Your task to perform on an android device: Go to eBay Image 0: 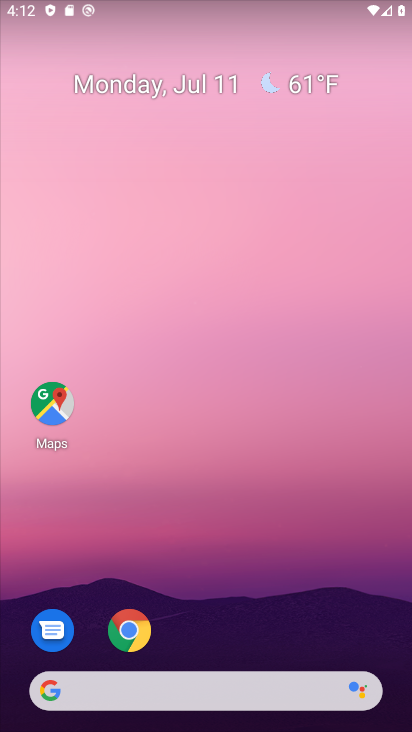
Step 0: drag from (312, 593) to (258, 3)
Your task to perform on an android device: Go to eBay Image 1: 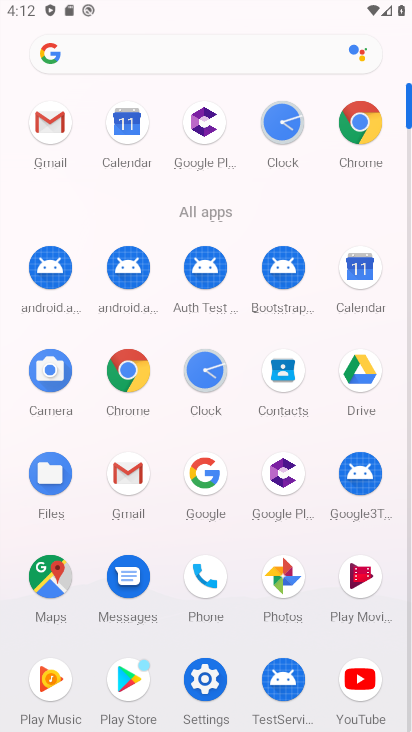
Step 1: click (374, 131)
Your task to perform on an android device: Go to eBay Image 2: 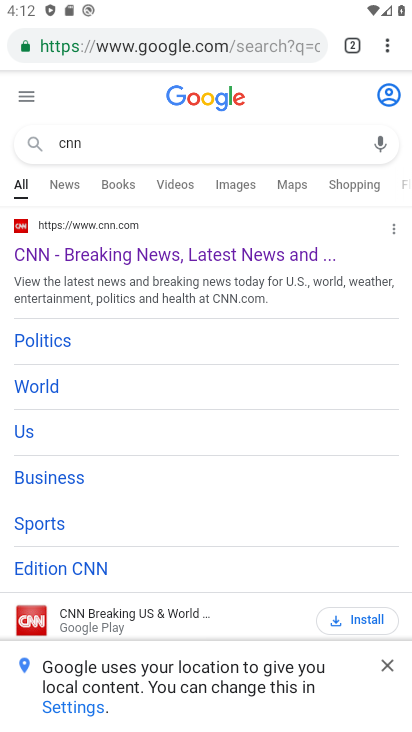
Step 2: press back button
Your task to perform on an android device: Go to eBay Image 3: 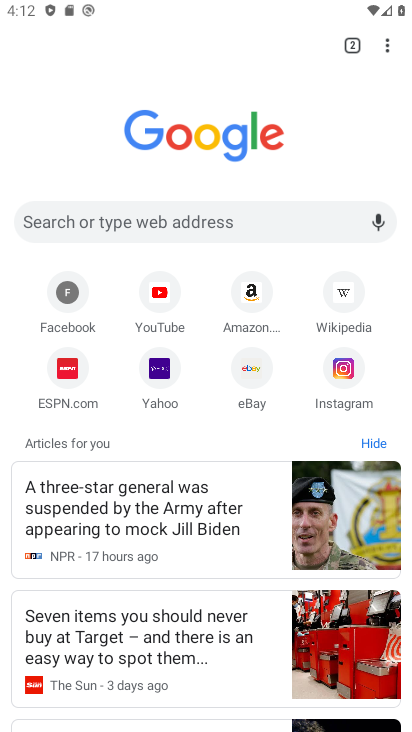
Step 3: click (237, 365)
Your task to perform on an android device: Go to eBay Image 4: 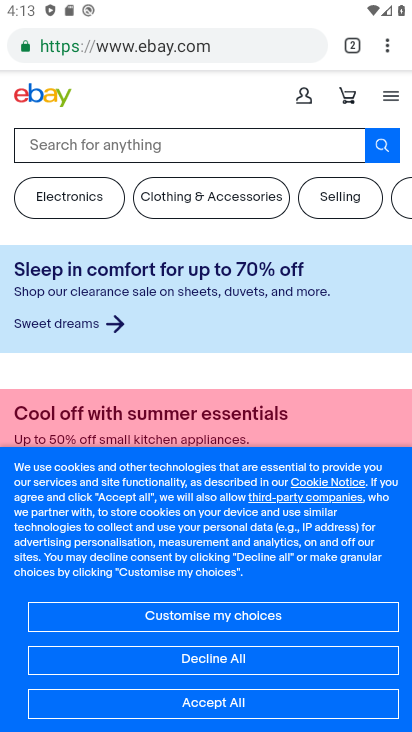
Step 4: task complete